Your task to perform on an android device: empty trash in google photos Image 0: 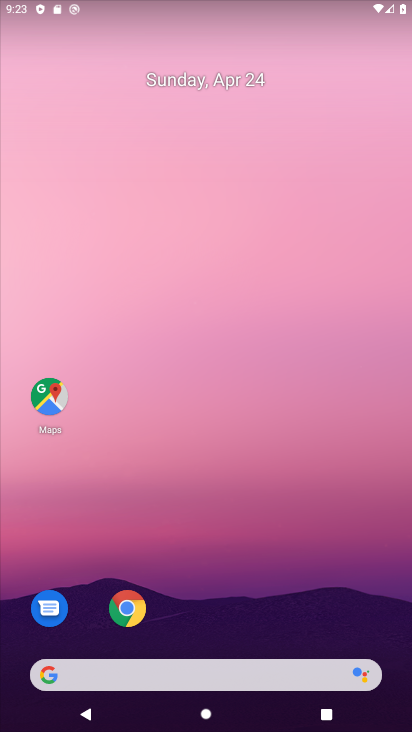
Step 0: click (83, 114)
Your task to perform on an android device: empty trash in google photos Image 1: 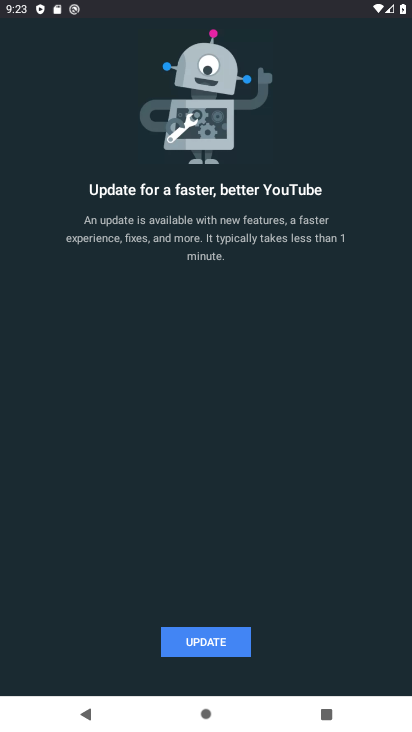
Step 1: press back button
Your task to perform on an android device: empty trash in google photos Image 2: 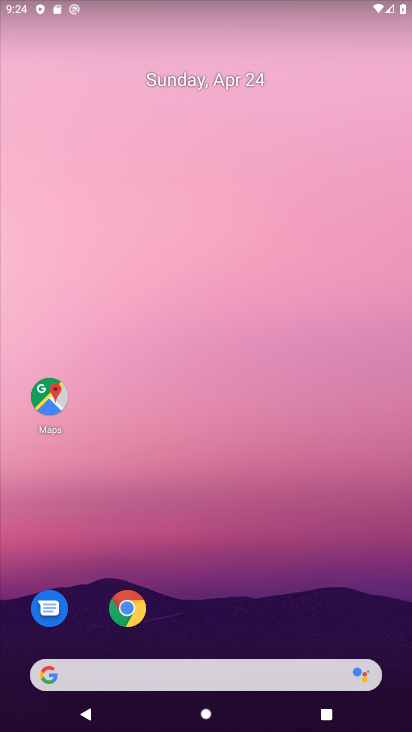
Step 2: drag from (280, 691) to (141, 144)
Your task to perform on an android device: empty trash in google photos Image 3: 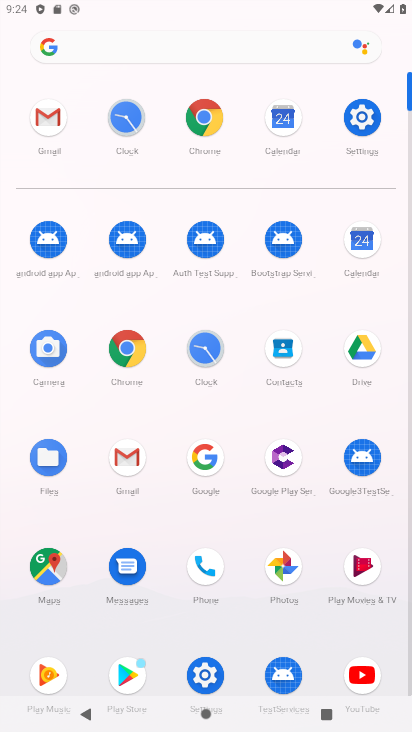
Step 3: click (275, 550)
Your task to perform on an android device: empty trash in google photos Image 4: 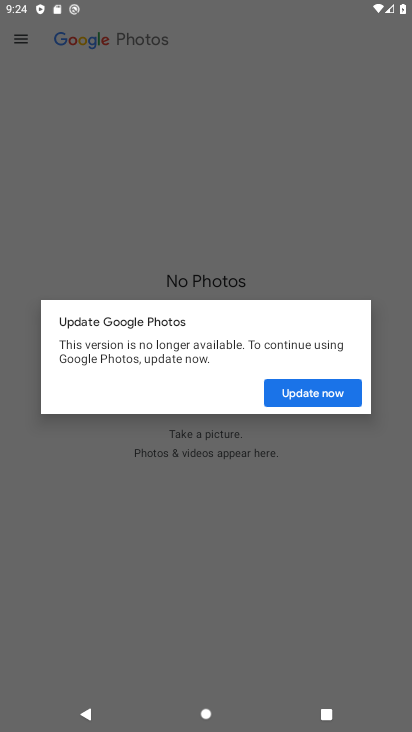
Step 4: click (325, 400)
Your task to perform on an android device: empty trash in google photos Image 5: 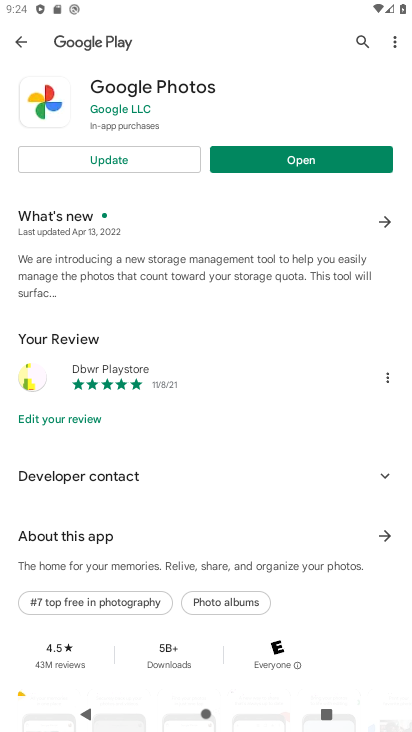
Step 5: click (256, 165)
Your task to perform on an android device: empty trash in google photos Image 6: 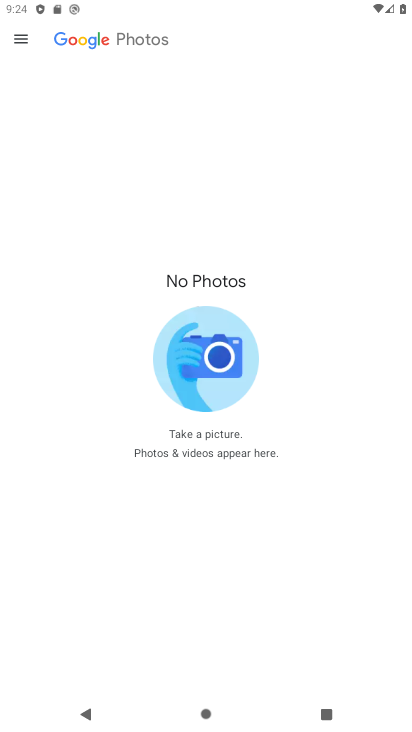
Step 6: click (29, 33)
Your task to perform on an android device: empty trash in google photos Image 7: 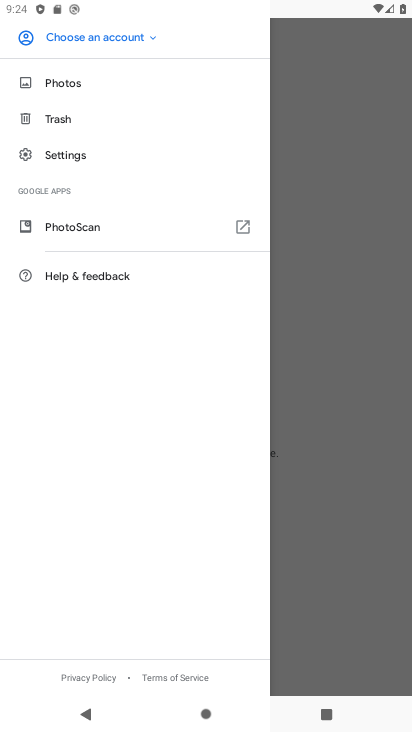
Step 7: click (65, 116)
Your task to perform on an android device: empty trash in google photos Image 8: 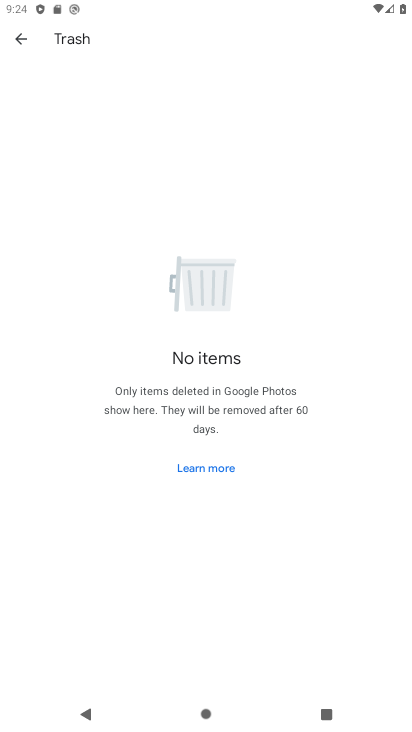
Step 8: task complete